Your task to perform on an android device: Search for usb-c on walmart, select the first entry, and add it to the cart. Image 0: 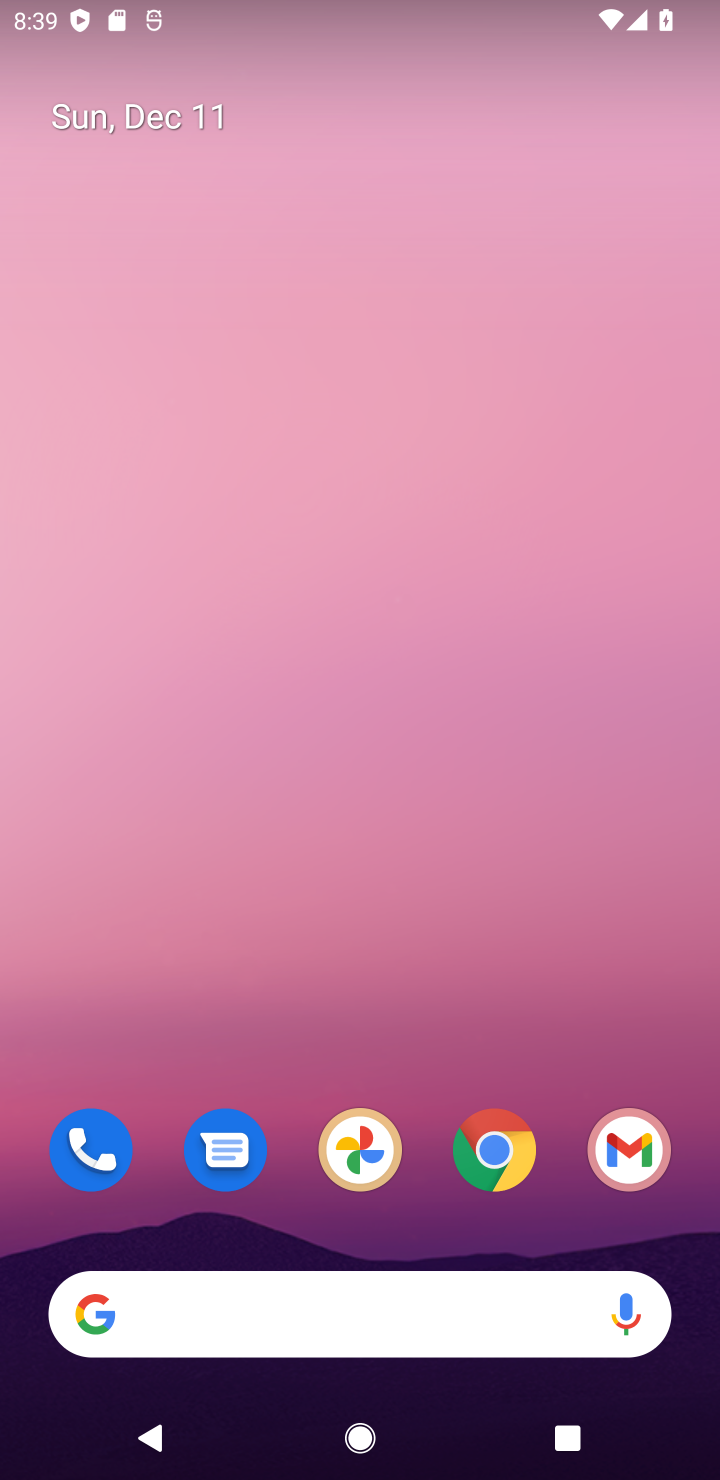
Step 0: click (495, 1153)
Your task to perform on an android device: Search for usb-c on walmart, select the first entry, and add it to the cart. Image 1: 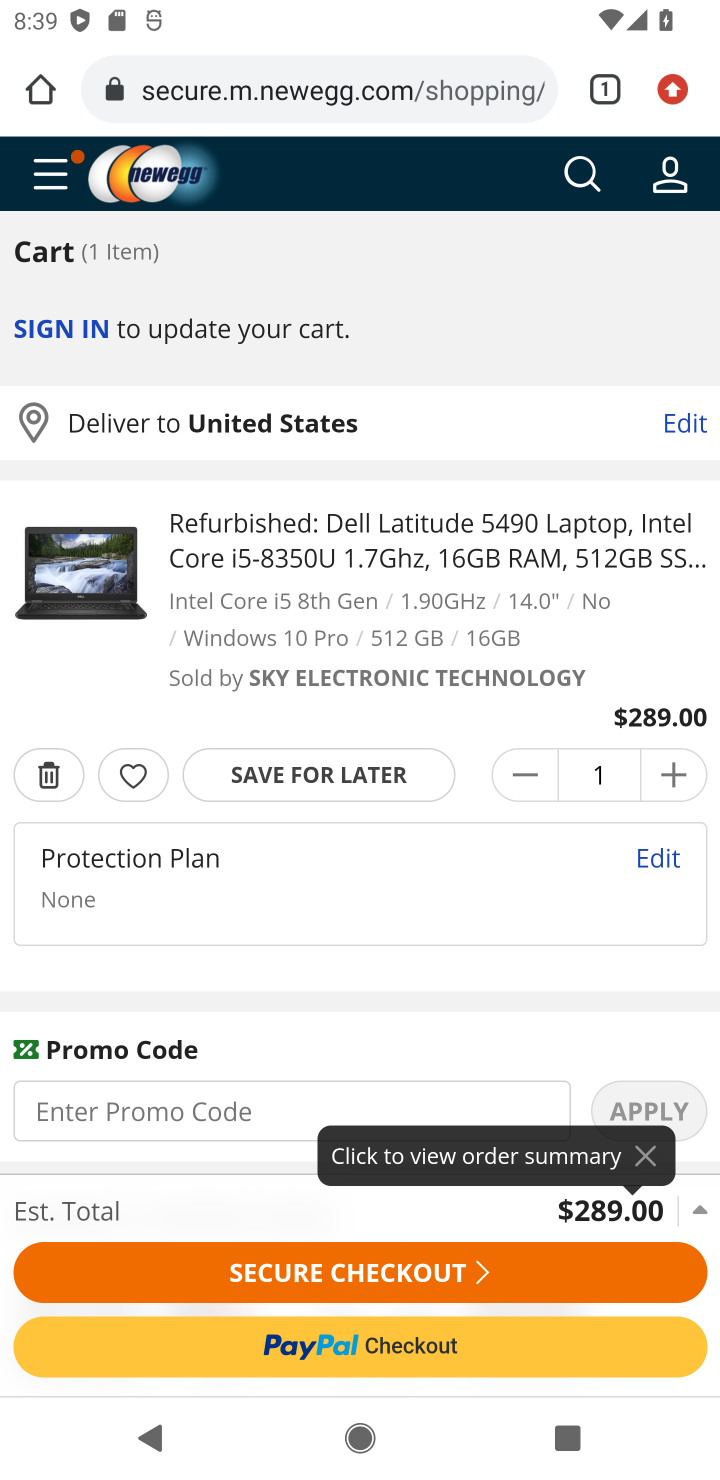
Step 1: click (404, 84)
Your task to perform on an android device: Search for usb-c on walmart, select the first entry, and add it to the cart. Image 2: 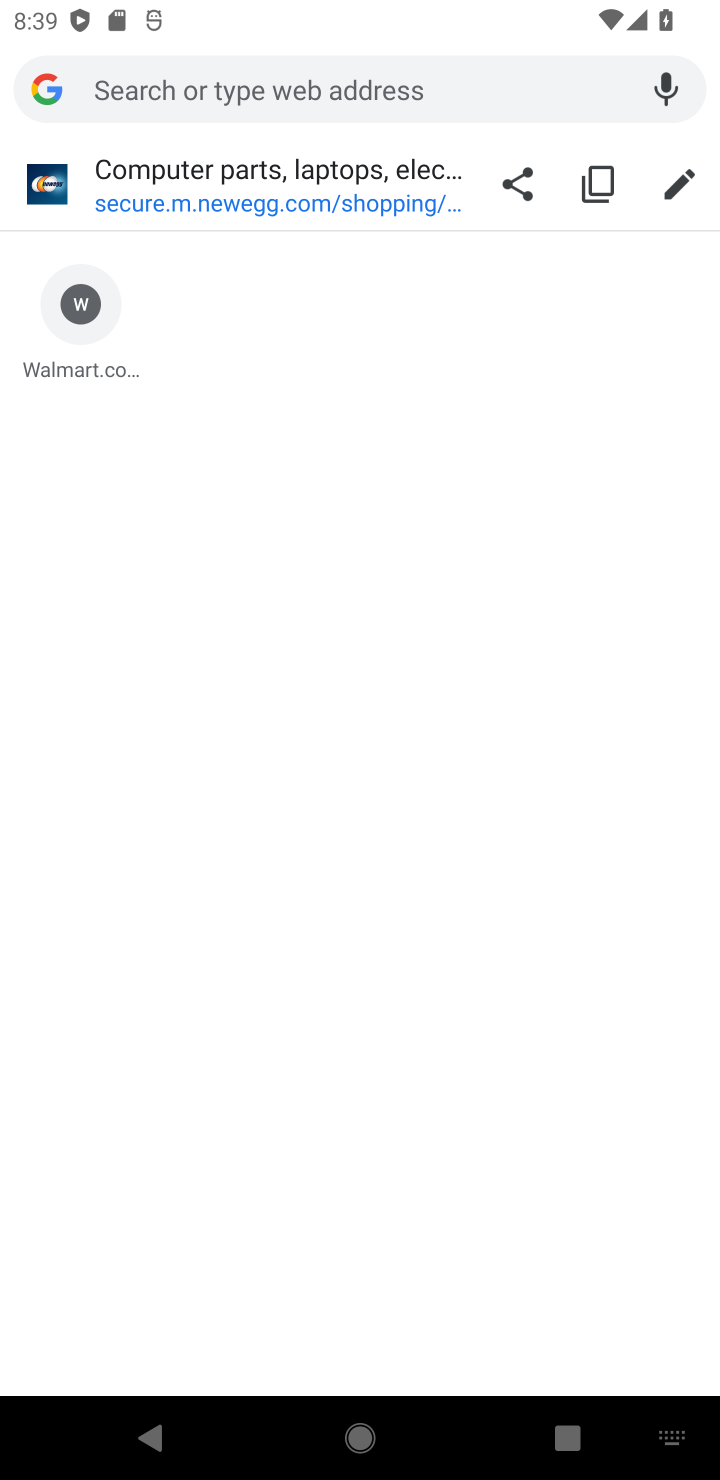
Step 2: type "walmart"
Your task to perform on an android device: Search for usb-c on walmart, select the first entry, and add it to the cart. Image 3: 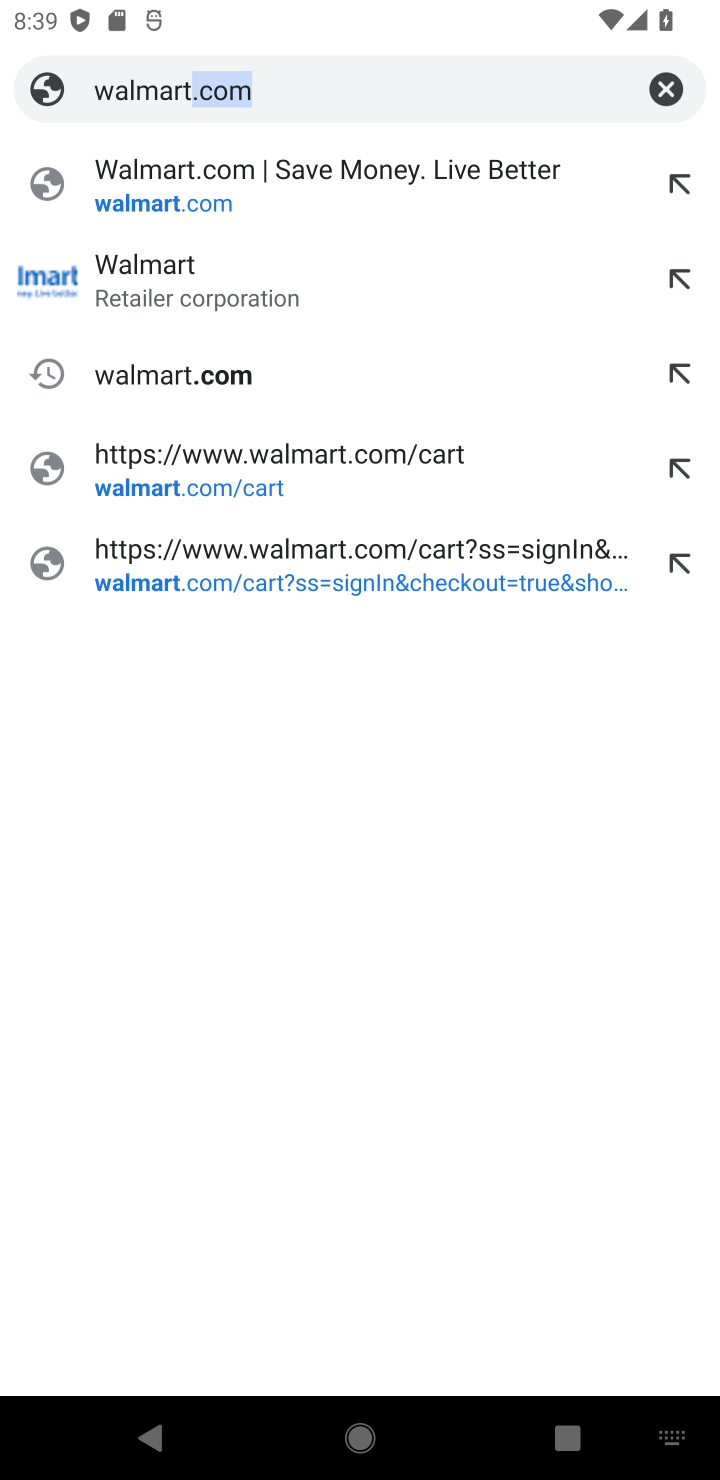
Step 3: click (152, 267)
Your task to perform on an android device: Search for usb-c on walmart, select the first entry, and add it to the cart. Image 4: 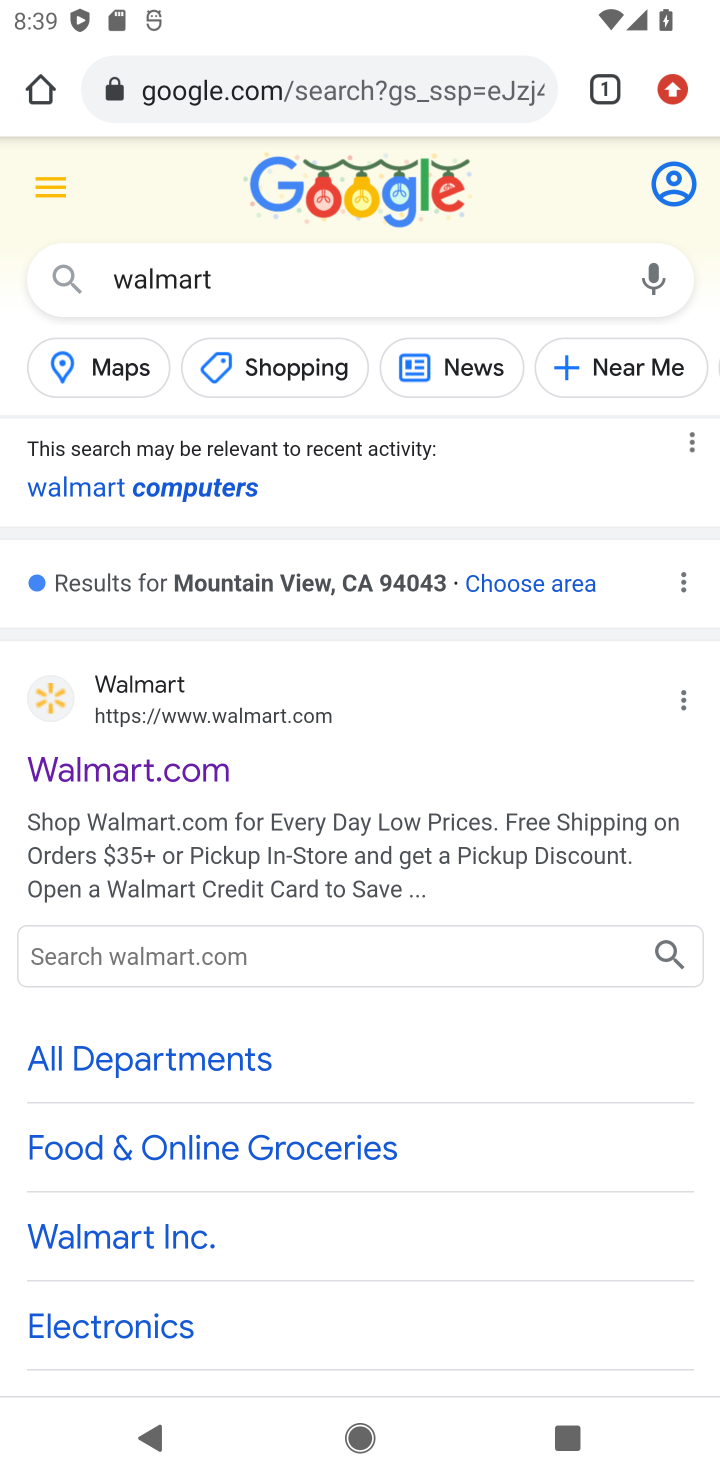
Step 4: click (193, 777)
Your task to perform on an android device: Search for usb-c on walmart, select the first entry, and add it to the cart. Image 5: 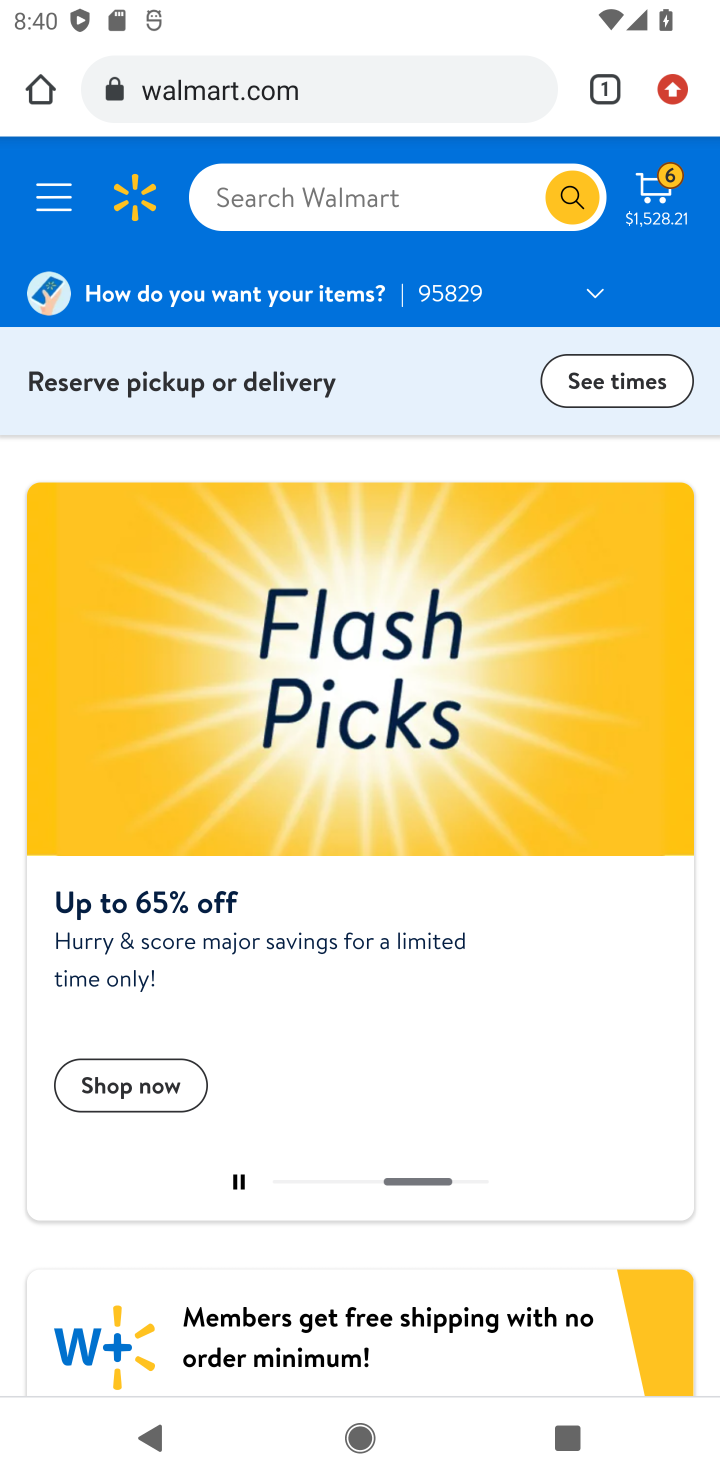
Step 5: click (430, 209)
Your task to perform on an android device: Search for usb-c on walmart, select the first entry, and add it to the cart. Image 6: 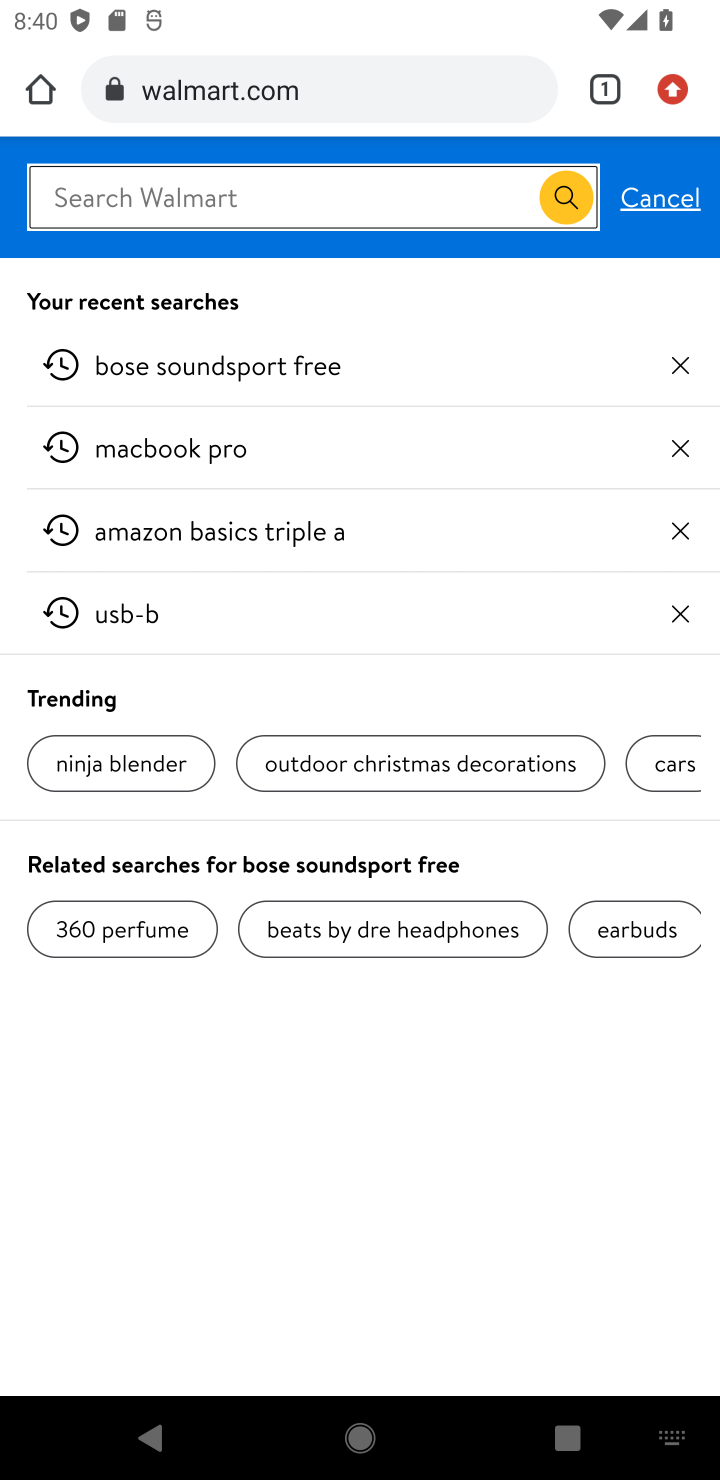
Step 6: type "usb-c"
Your task to perform on an android device: Search for usb-c on walmart, select the first entry, and add it to the cart. Image 7: 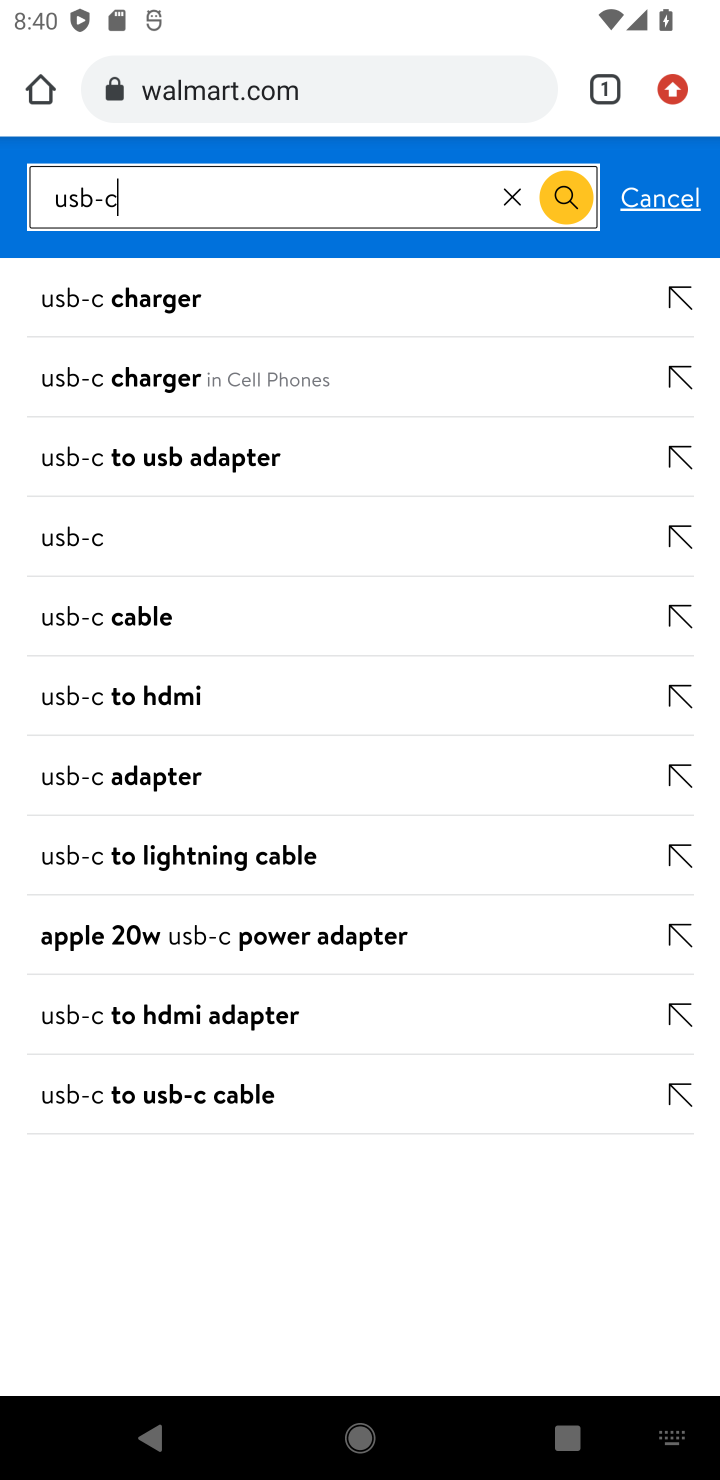
Step 7: click (95, 543)
Your task to perform on an android device: Search for usb-c on walmart, select the first entry, and add it to the cart. Image 8: 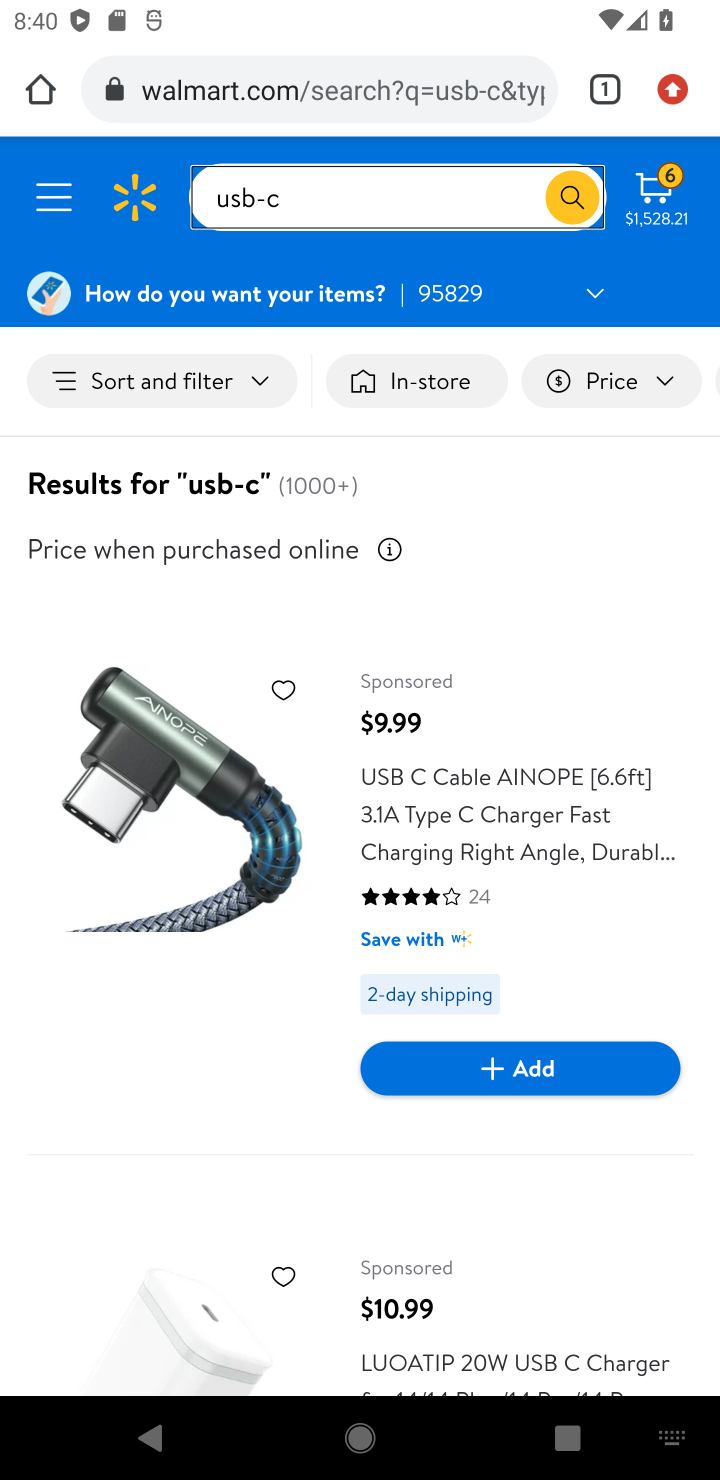
Step 8: click (494, 795)
Your task to perform on an android device: Search for usb-c on walmart, select the first entry, and add it to the cart. Image 9: 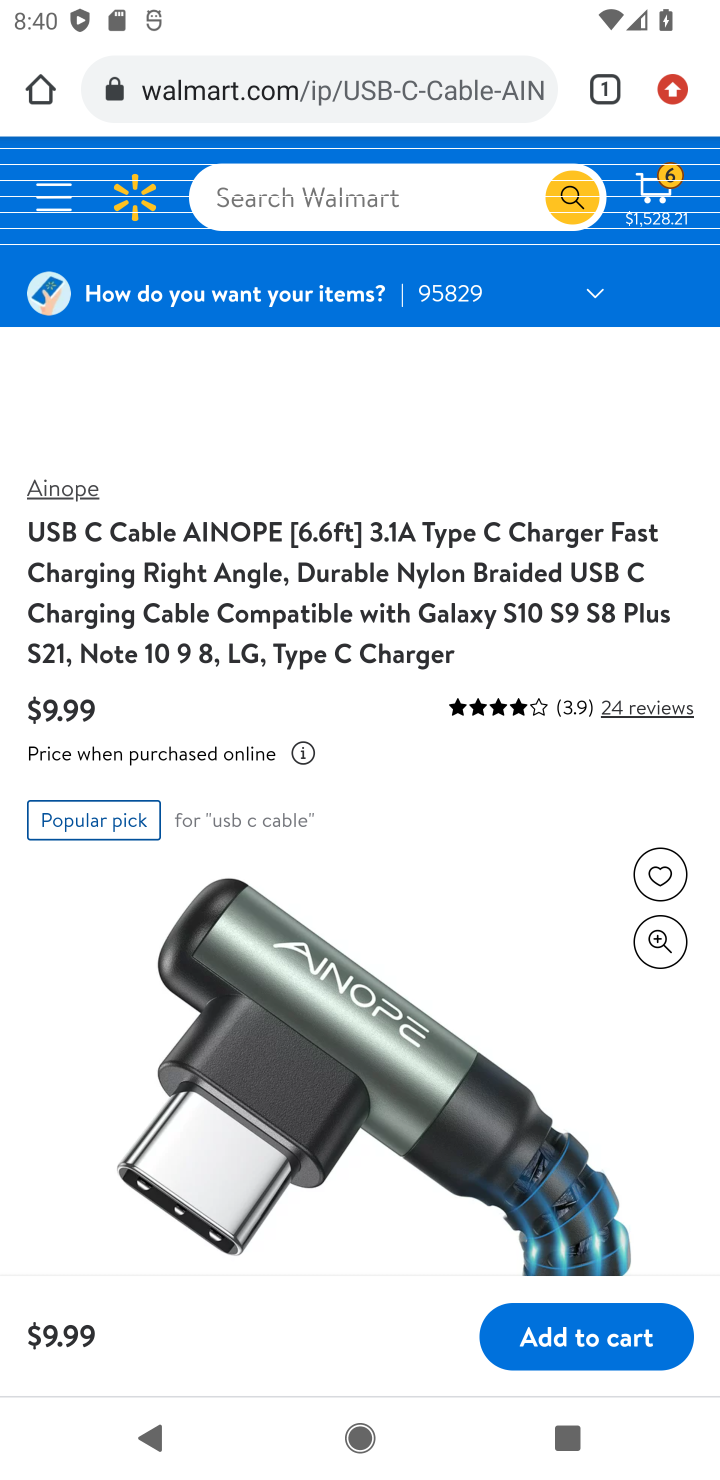
Step 9: click (586, 1335)
Your task to perform on an android device: Search for usb-c on walmart, select the first entry, and add it to the cart. Image 10: 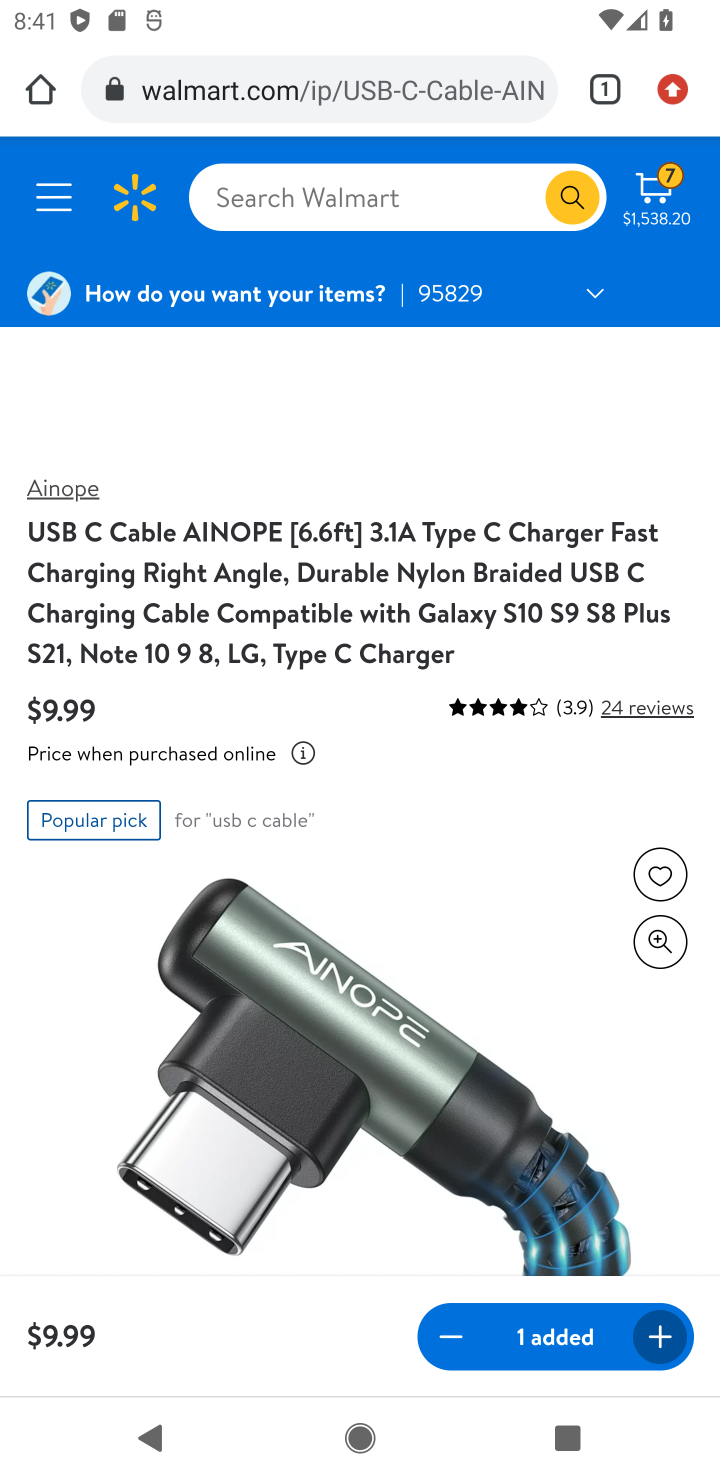
Step 10: task complete